Your task to perform on an android device: turn smart compose on in the gmail app Image 0: 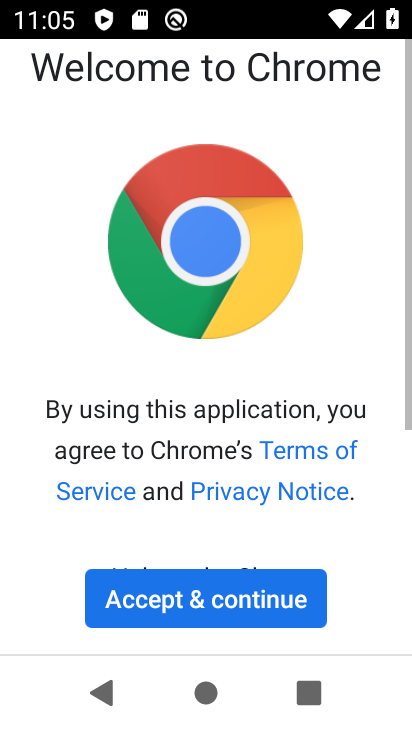
Step 0: press home button
Your task to perform on an android device: turn smart compose on in the gmail app Image 1: 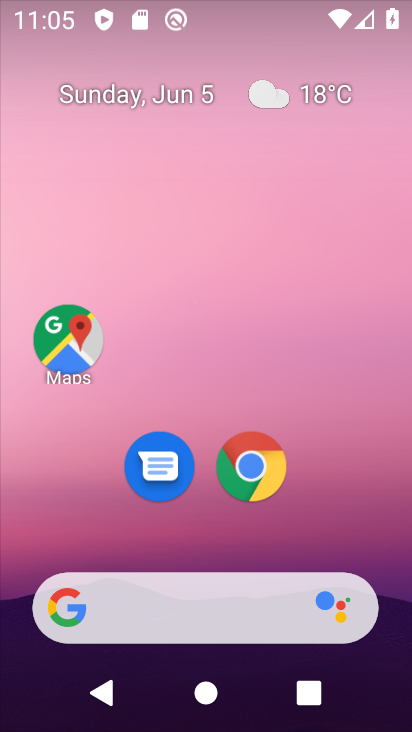
Step 1: click (353, 76)
Your task to perform on an android device: turn smart compose on in the gmail app Image 2: 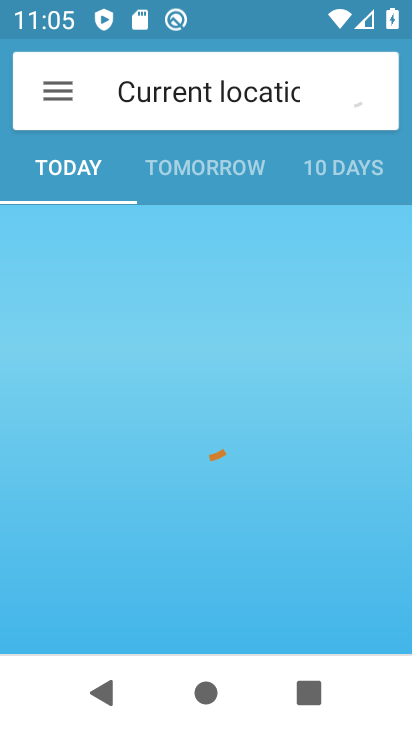
Step 2: drag from (346, 501) to (276, 318)
Your task to perform on an android device: turn smart compose on in the gmail app Image 3: 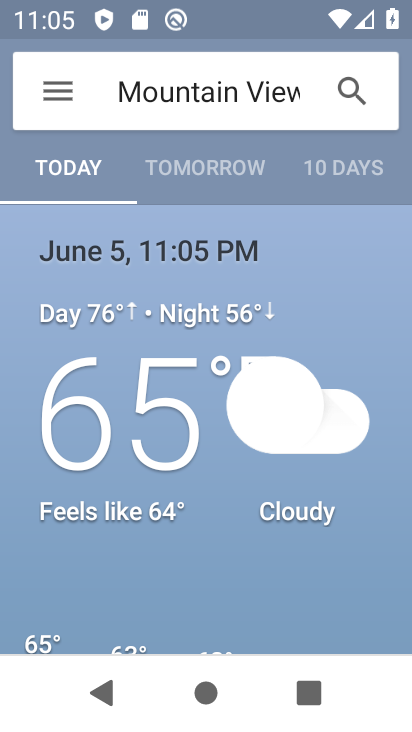
Step 3: press home button
Your task to perform on an android device: turn smart compose on in the gmail app Image 4: 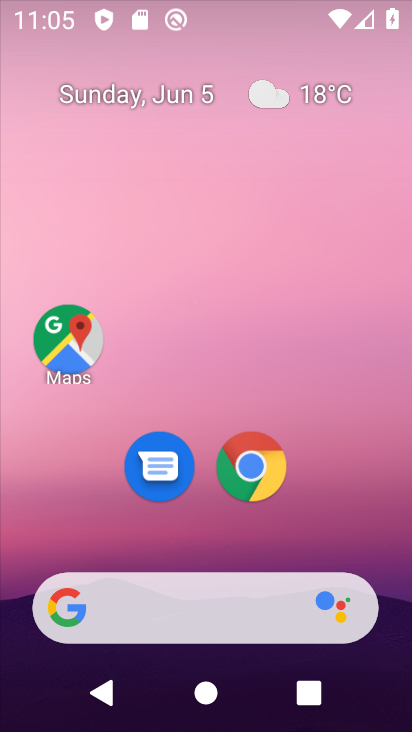
Step 4: drag from (349, 504) to (334, 137)
Your task to perform on an android device: turn smart compose on in the gmail app Image 5: 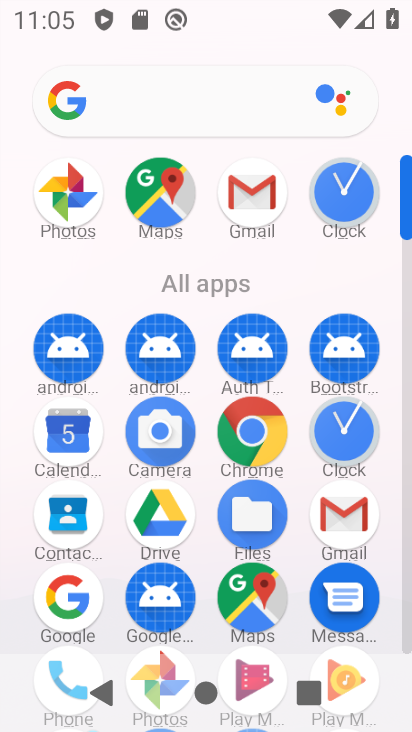
Step 5: click (343, 521)
Your task to perform on an android device: turn smart compose on in the gmail app Image 6: 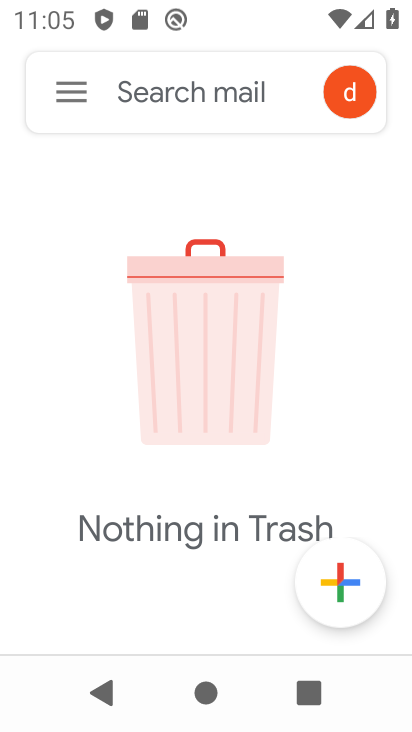
Step 6: click (78, 104)
Your task to perform on an android device: turn smart compose on in the gmail app Image 7: 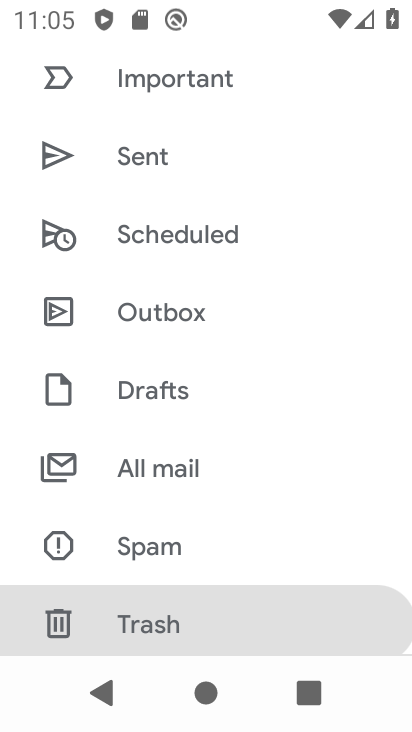
Step 7: drag from (273, 561) to (305, 209)
Your task to perform on an android device: turn smart compose on in the gmail app Image 8: 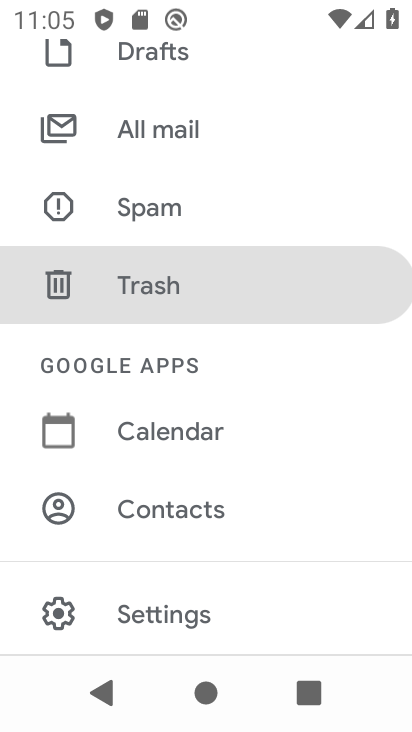
Step 8: drag from (257, 549) to (292, 192)
Your task to perform on an android device: turn smart compose on in the gmail app Image 9: 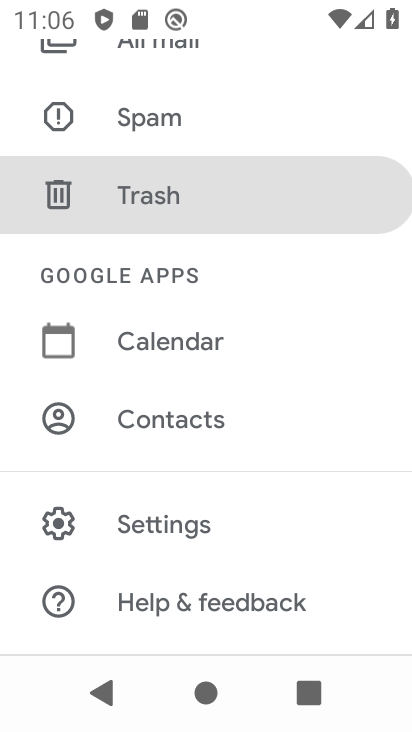
Step 9: click (193, 518)
Your task to perform on an android device: turn smart compose on in the gmail app Image 10: 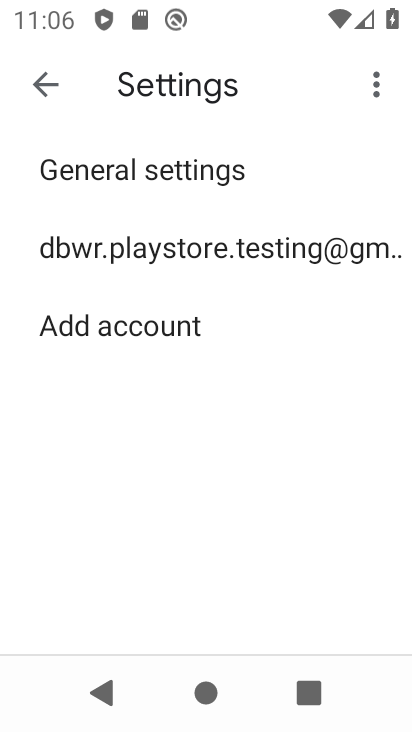
Step 10: click (266, 251)
Your task to perform on an android device: turn smart compose on in the gmail app Image 11: 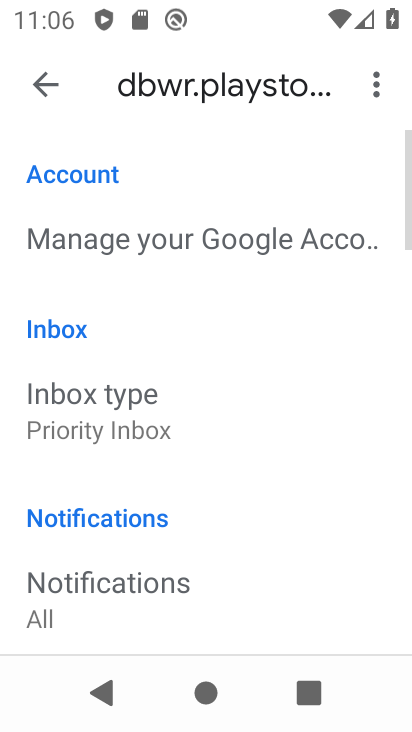
Step 11: task complete